Your task to perform on an android device: Open sound settings Image 0: 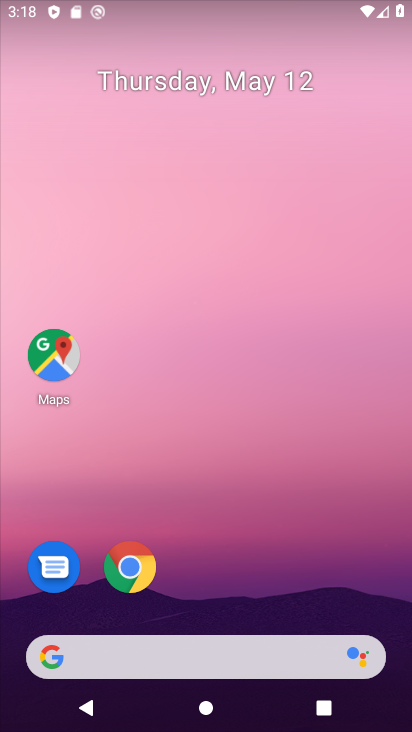
Step 0: drag from (188, 636) to (274, 138)
Your task to perform on an android device: Open sound settings Image 1: 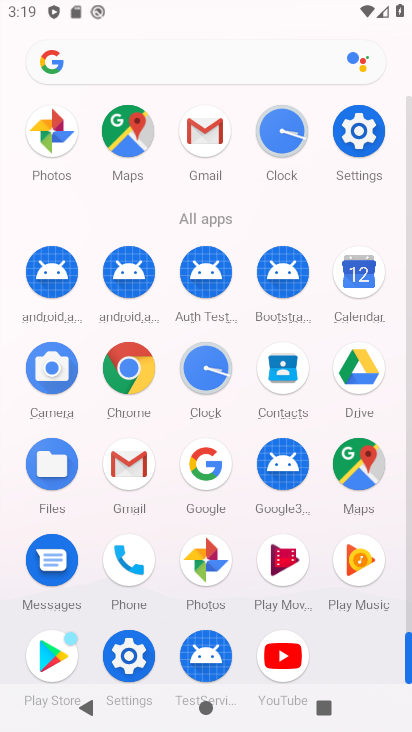
Step 1: click (123, 664)
Your task to perform on an android device: Open sound settings Image 2: 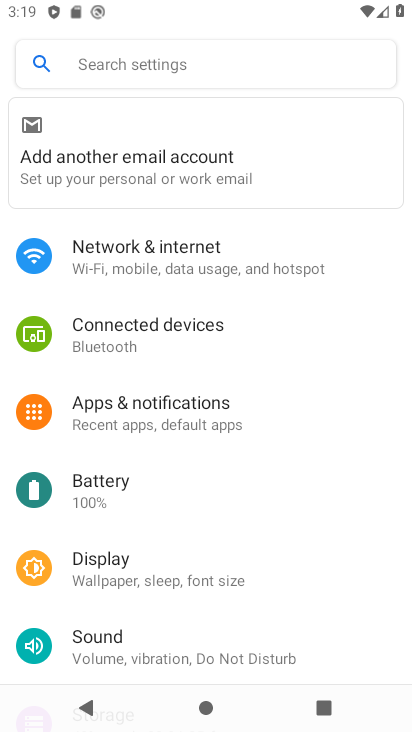
Step 2: drag from (151, 621) to (242, 273)
Your task to perform on an android device: Open sound settings Image 3: 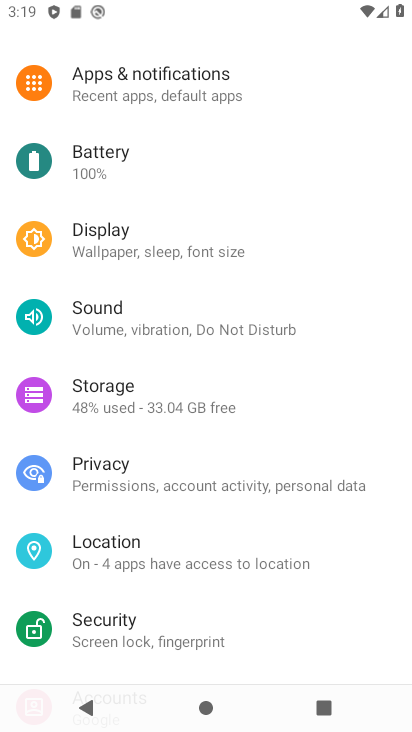
Step 3: click (156, 323)
Your task to perform on an android device: Open sound settings Image 4: 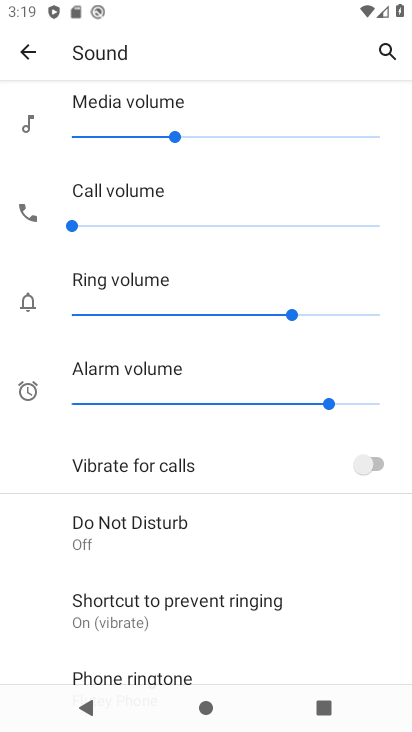
Step 4: task complete